Your task to perform on an android device: Do I have any events today? Image 0: 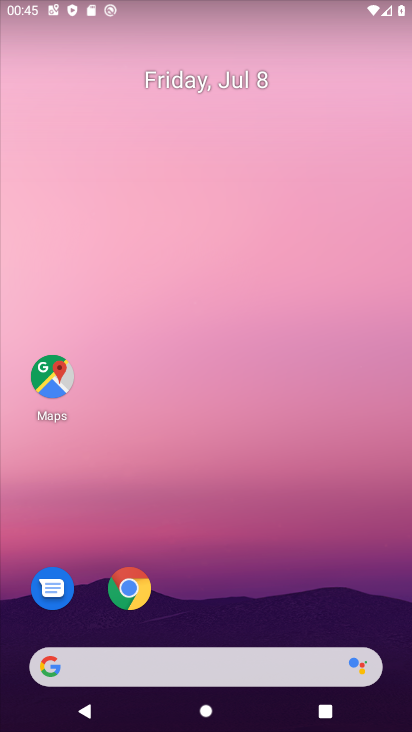
Step 0: click (91, 205)
Your task to perform on an android device: Do I have any events today? Image 1: 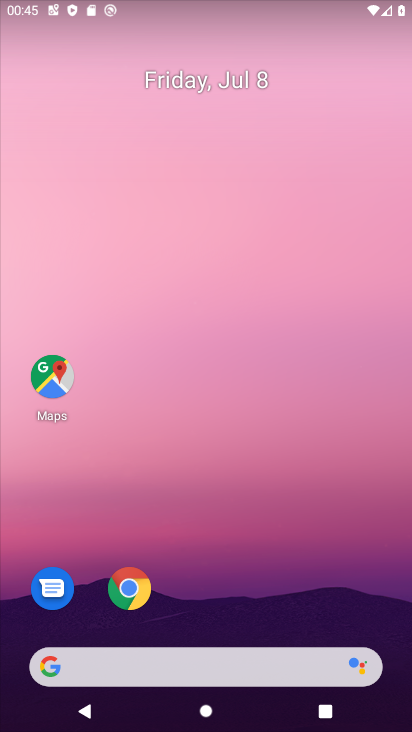
Step 1: drag from (186, 621) to (232, 56)
Your task to perform on an android device: Do I have any events today? Image 2: 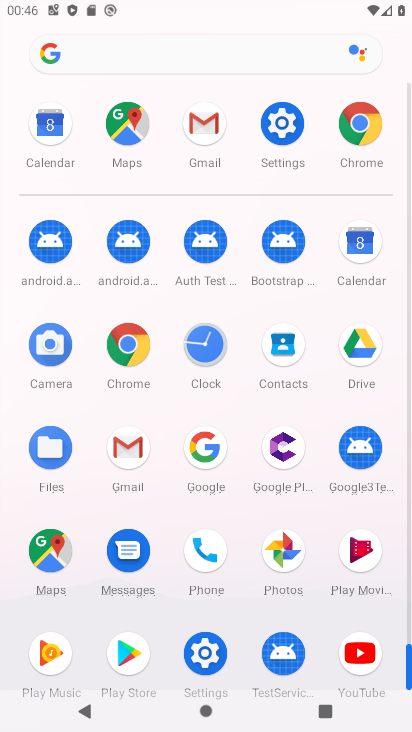
Step 2: drag from (238, 577) to (235, 178)
Your task to perform on an android device: Do I have any events today? Image 3: 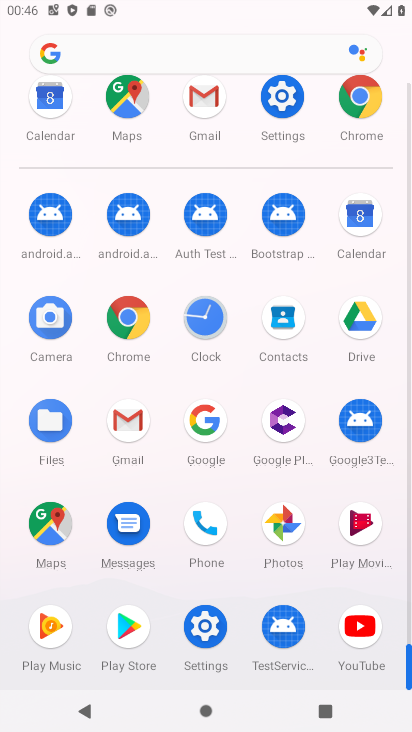
Step 3: click (346, 226)
Your task to perform on an android device: Do I have any events today? Image 4: 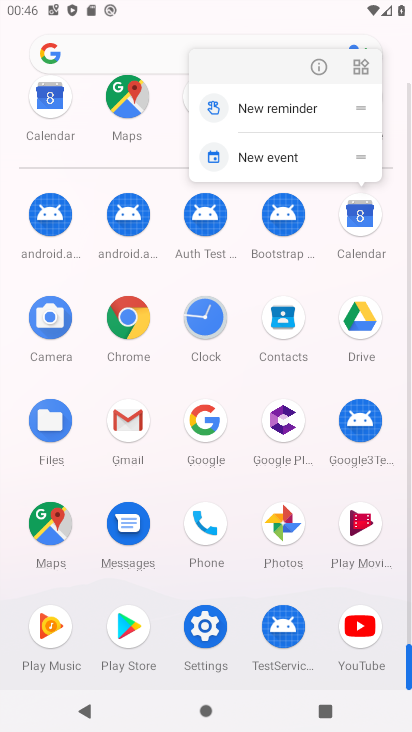
Step 4: click (318, 60)
Your task to perform on an android device: Do I have any events today? Image 5: 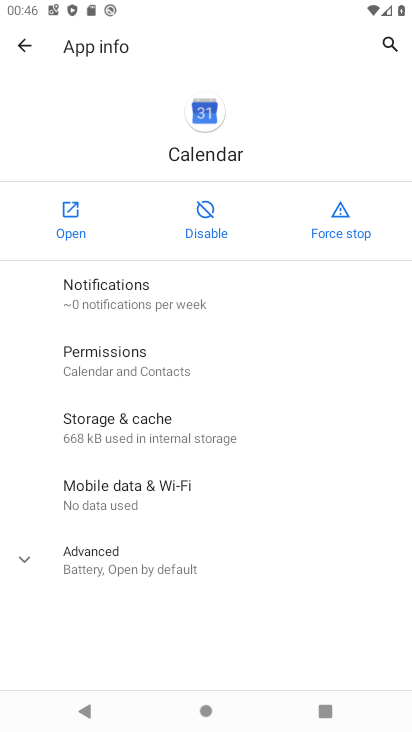
Step 5: click (89, 218)
Your task to perform on an android device: Do I have any events today? Image 6: 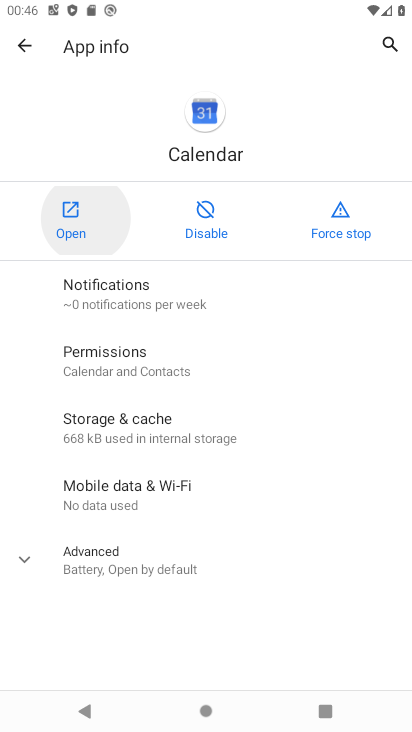
Step 6: click (91, 223)
Your task to perform on an android device: Do I have any events today? Image 7: 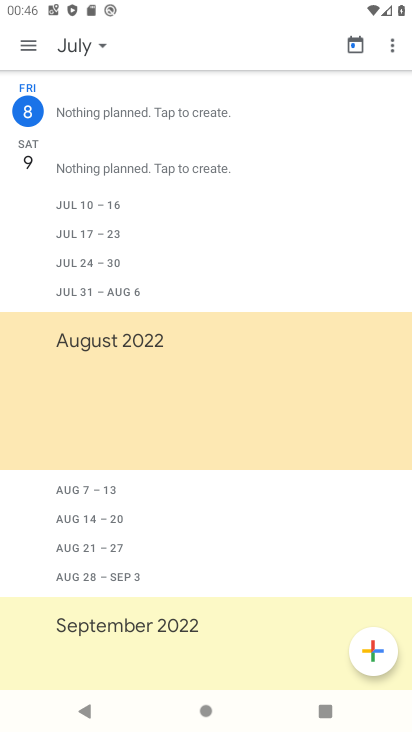
Step 7: click (87, 25)
Your task to perform on an android device: Do I have any events today? Image 8: 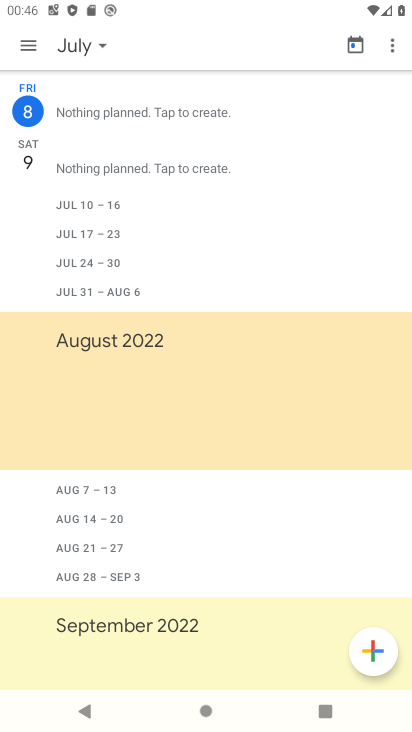
Step 8: click (87, 31)
Your task to perform on an android device: Do I have any events today? Image 9: 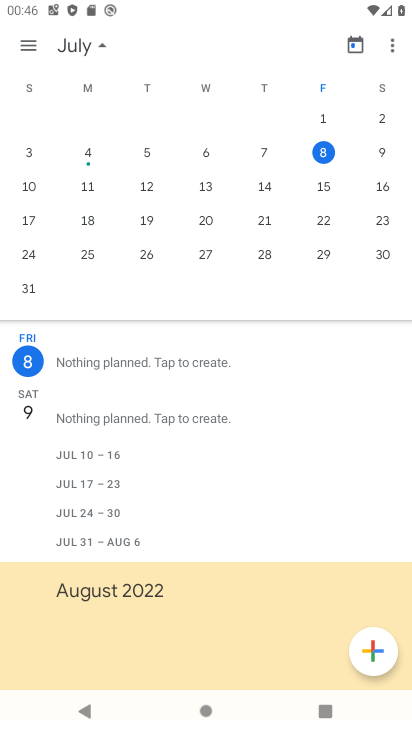
Step 9: click (382, 151)
Your task to perform on an android device: Do I have any events today? Image 10: 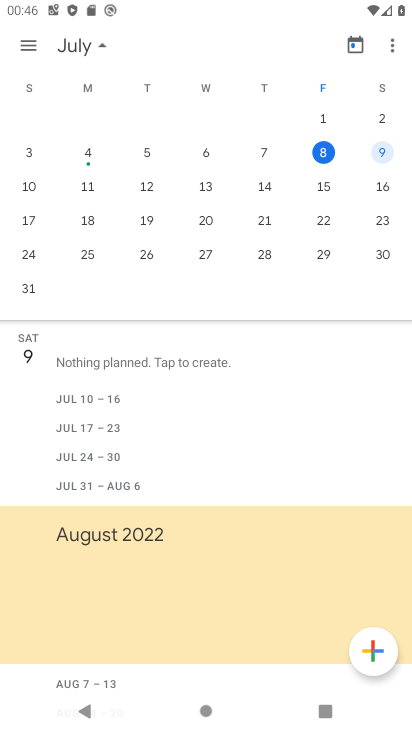
Step 10: click (315, 156)
Your task to perform on an android device: Do I have any events today? Image 11: 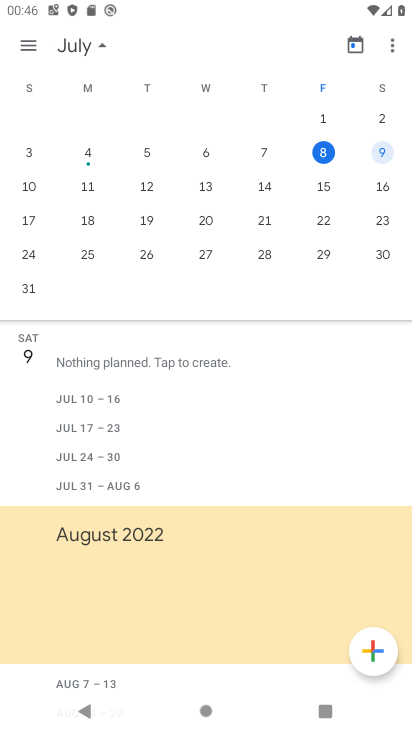
Step 11: click (315, 156)
Your task to perform on an android device: Do I have any events today? Image 12: 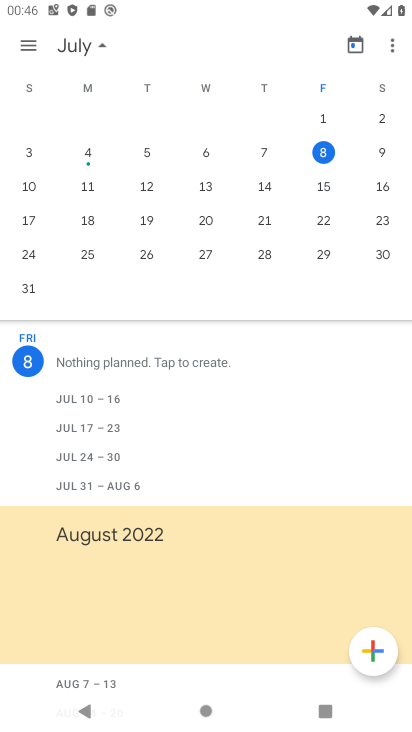
Step 12: task complete